Your task to perform on an android device: turn on translation in the chrome app Image 0: 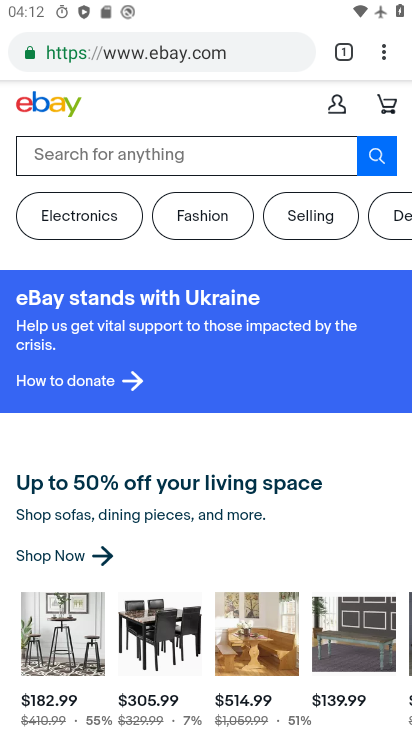
Step 0: drag from (384, 51) to (197, 634)
Your task to perform on an android device: turn on translation in the chrome app Image 1: 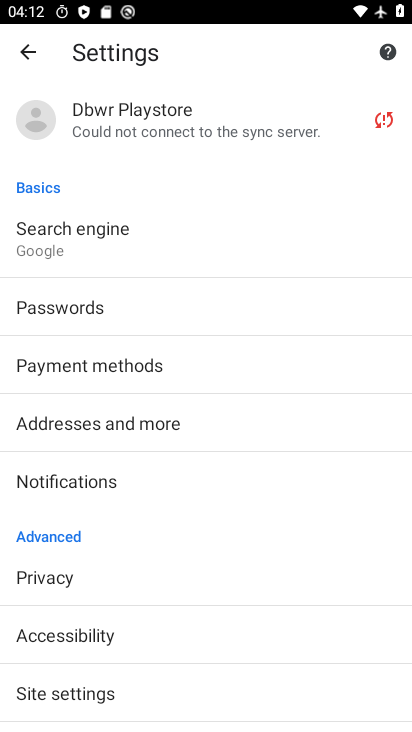
Step 1: drag from (157, 583) to (140, 330)
Your task to perform on an android device: turn on translation in the chrome app Image 2: 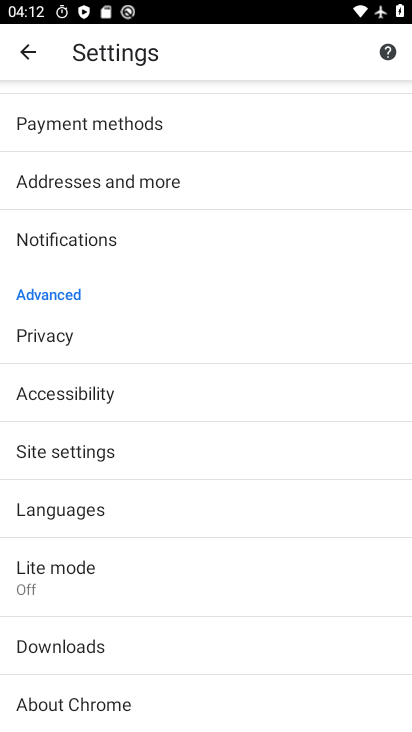
Step 2: click (79, 511)
Your task to perform on an android device: turn on translation in the chrome app Image 3: 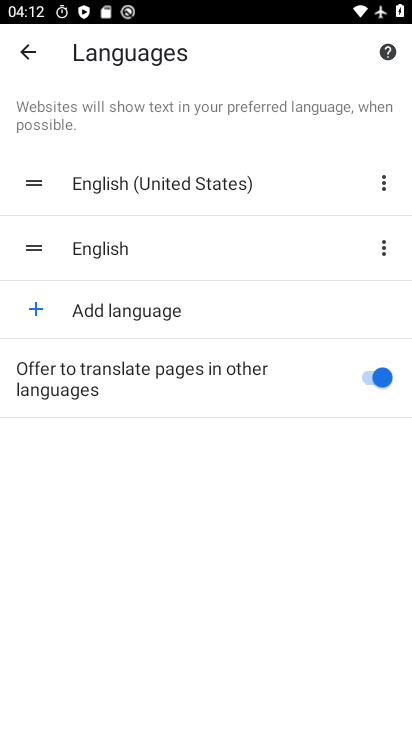
Step 3: task complete